Your task to perform on an android device: Go to Google maps Image 0: 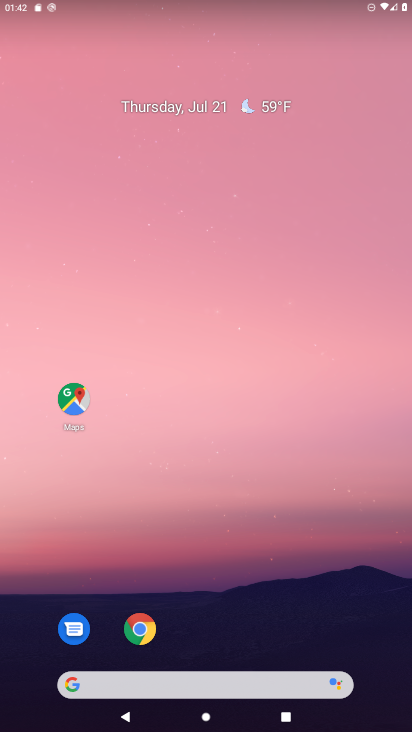
Step 0: click (74, 398)
Your task to perform on an android device: Go to Google maps Image 1: 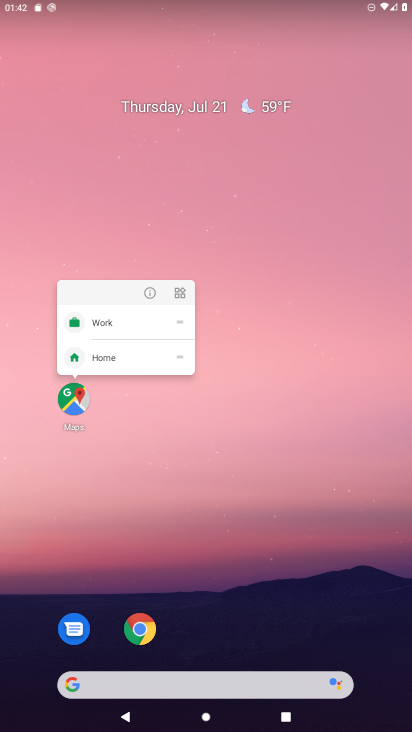
Step 1: click (74, 400)
Your task to perform on an android device: Go to Google maps Image 2: 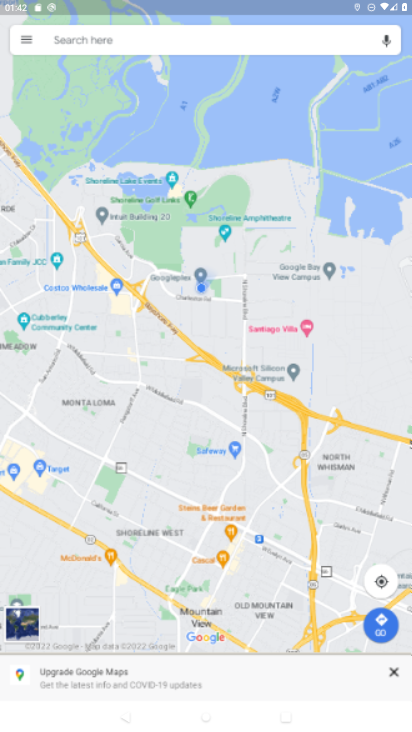
Step 2: task complete